Your task to perform on an android device: Go to display settings Image 0: 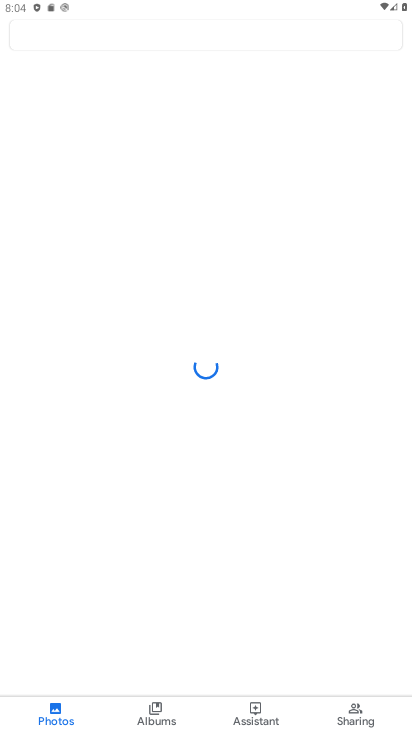
Step 0: drag from (363, 9) to (301, 235)
Your task to perform on an android device: Go to display settings Image 1: 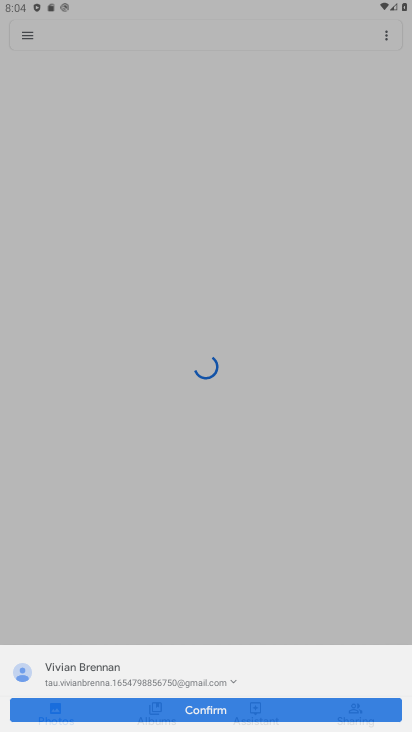
Step 1: press home button
Your task to perform on an android device: Go to display settings Image 2: 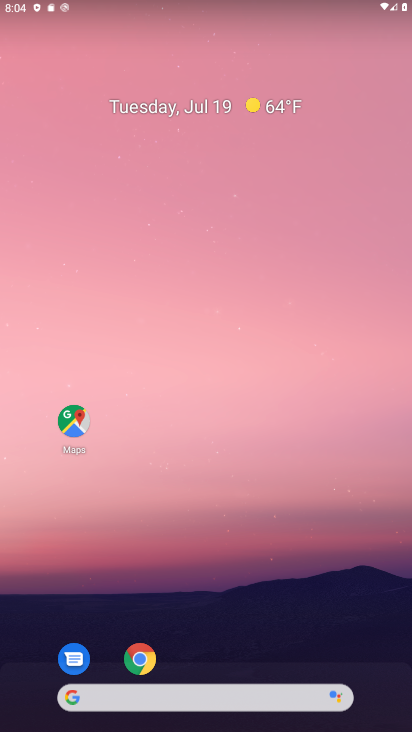
Step 2: drag from (220, 626) to (228, 200)
Your task to perform on an android device: Go to display settings Image 3: 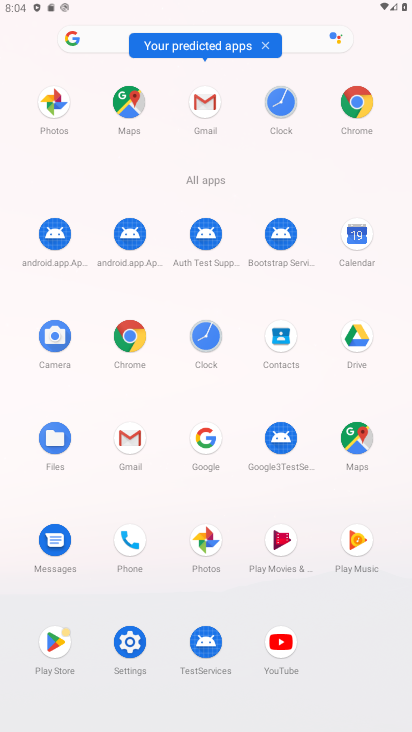
Step 3: click (133, 641)
Your task to perform on an android device: Go to display settings Image 4: 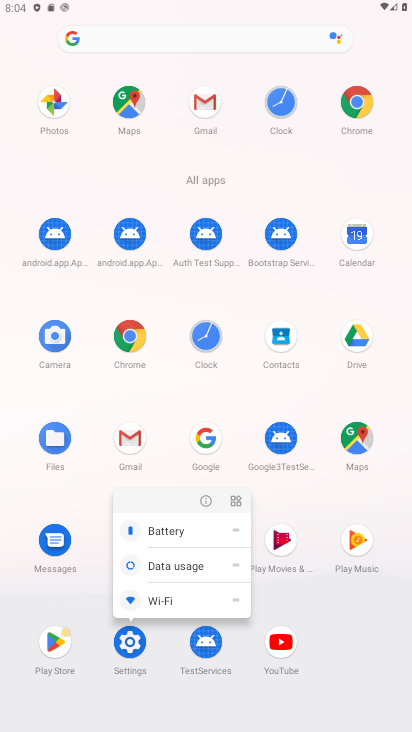
Step 4: click (125, 644)
Your task to perform on an android device: Go to display settings Image 5: 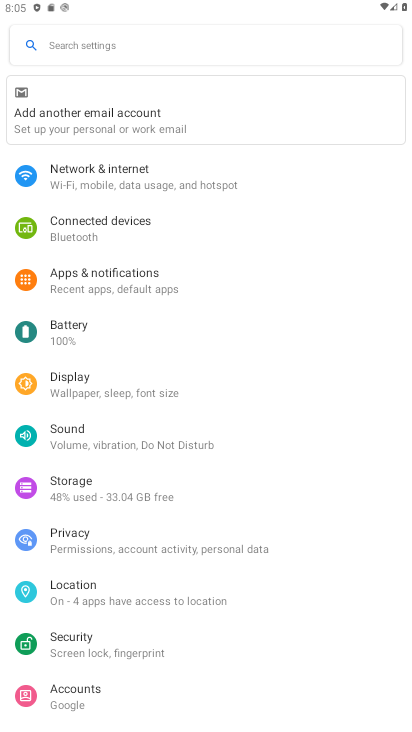
Step 5: click (96, 390)
Your task to perform on an android device: Go to display settings Image 6: 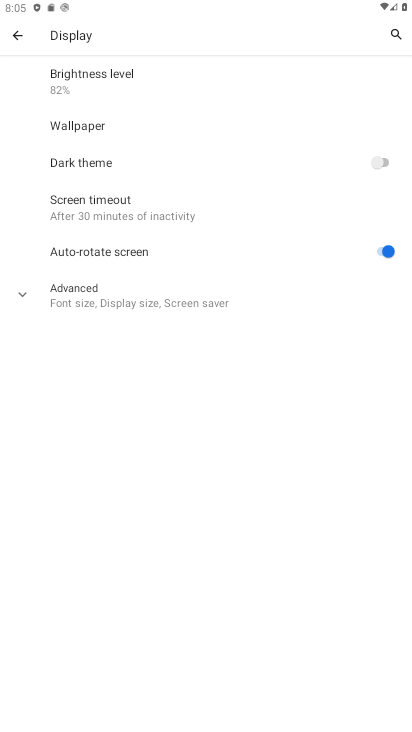
Step 6: task complete